Your task to perform on an android device: toggle priority inbox in the gmail app Image 0: 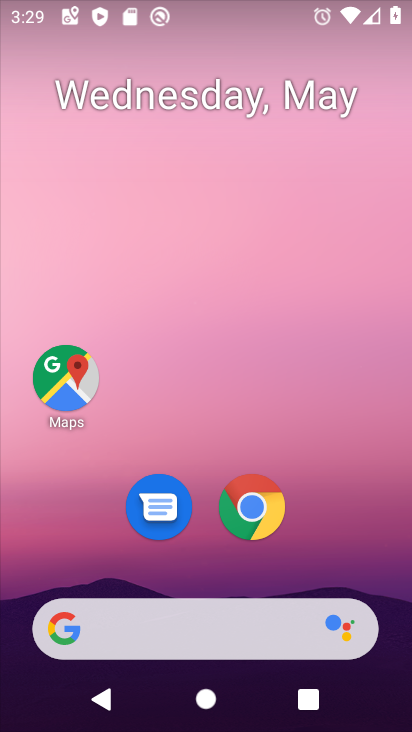
Step 0: drag from (179, 564) to (226, 124)
Your task to perform on an android device: toggle priority inbox in the gmail app Image 1: 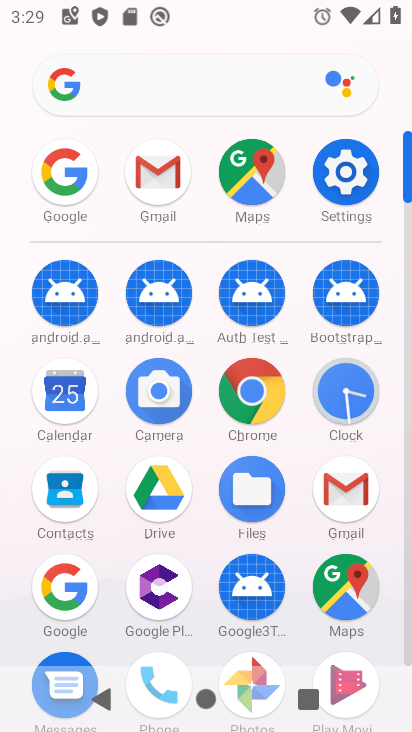
Step 1: click (163, 182)
Your task to perform on an android device: toggle priority inbox in the gmail app Image 2: 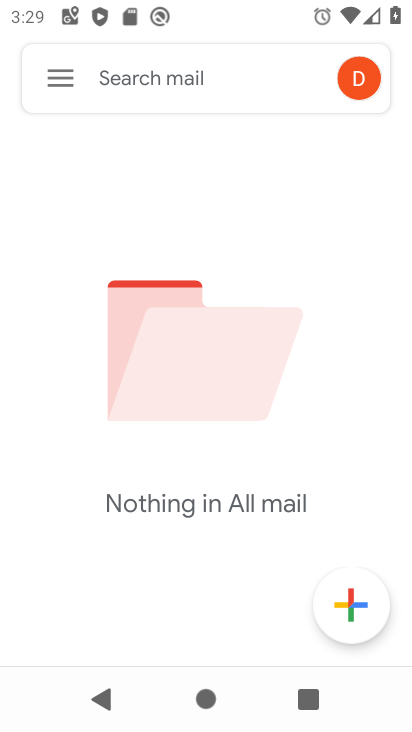
Step 2: click (52, 82)
Your task to perform on an android device: toggle priority inbox in the gmail app Image 3: 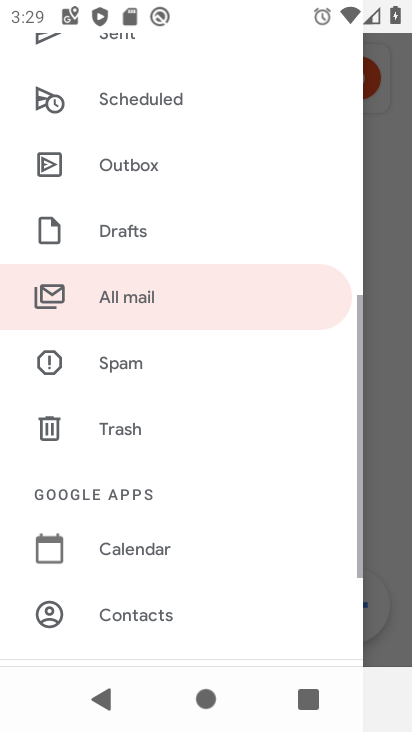
Step 3: drag from (190, 489) to (200, 252)
Your task to perform on an android device: toggle priority inbox in the gmail app Image 4: 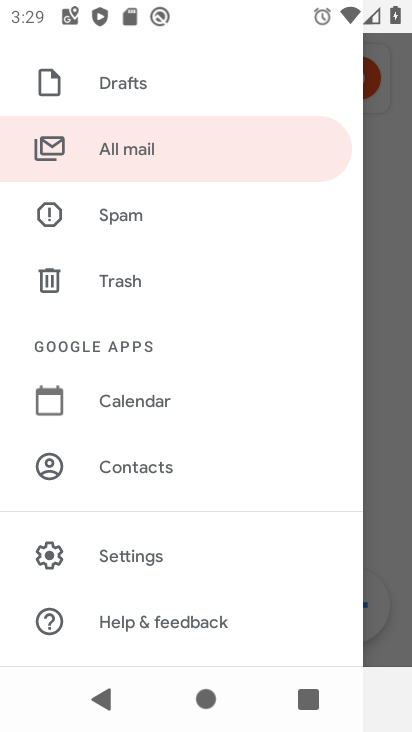
Step 4: click (151, 556)
Your task to perform on an android device: toggle priority inbox in the gmail app Image 5: 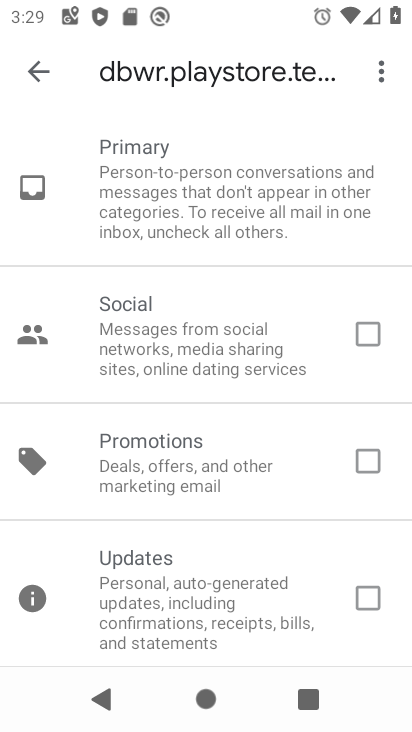
Step 5: press back button
Your task to perform on an android device: toggle priority inbox in the gmail app Image 6: 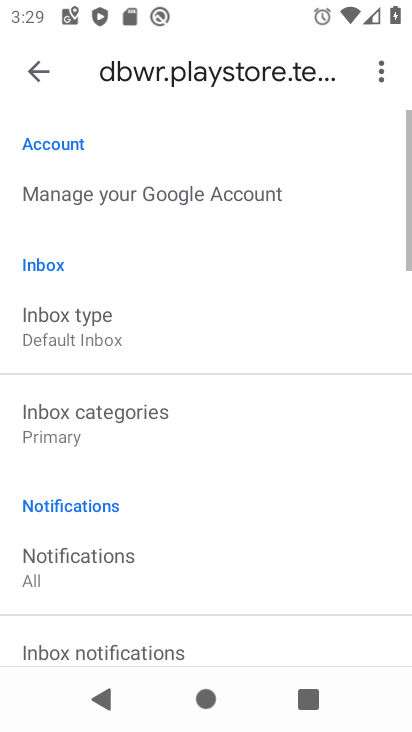
Step 6: click (103, 313)
Your task to perform on an android device: toggle priority inbox in the gmail app Image 7: 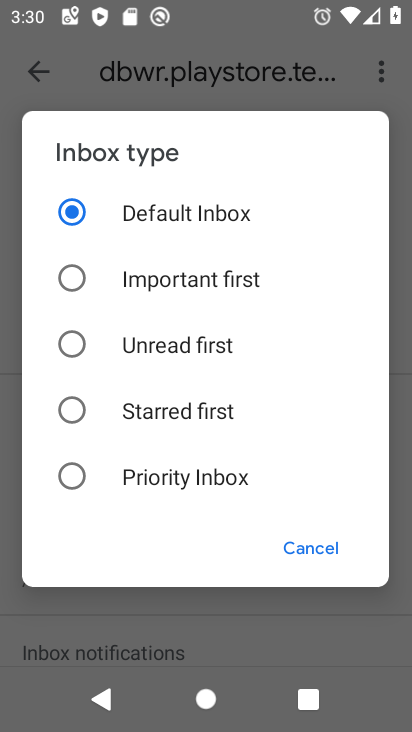
Step 7: click (76, 475)
Your task to perform on an android device: toggle priority inbox in the gmail app Image 8: 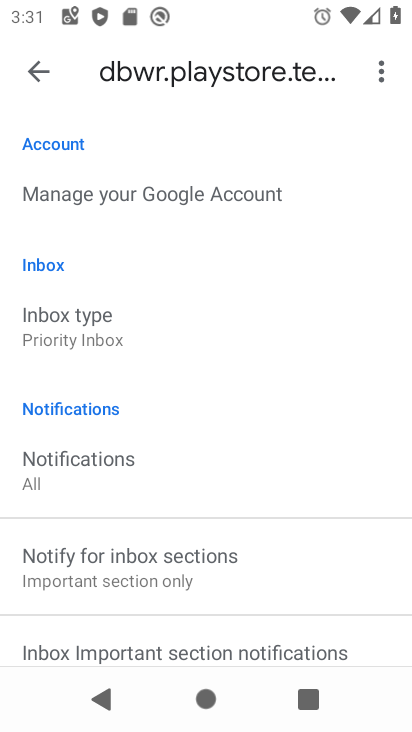
Step 8: task complete